Your task to perform on an android device: set default search engine in the chrome app Image 0: 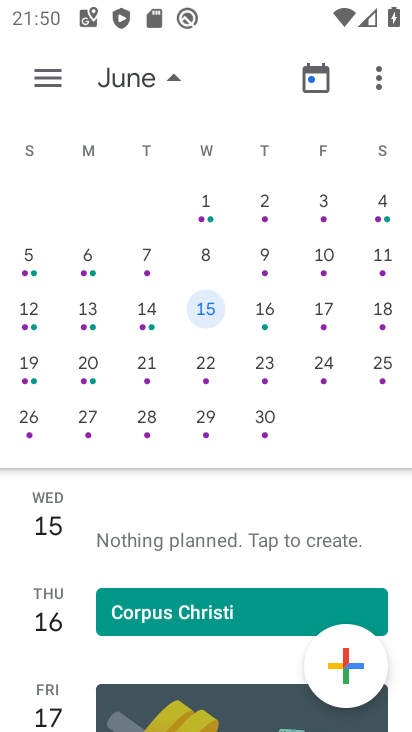
Step 0: press home button
Your task to perform on an android device: set default search engine in the chrome app Image 1: 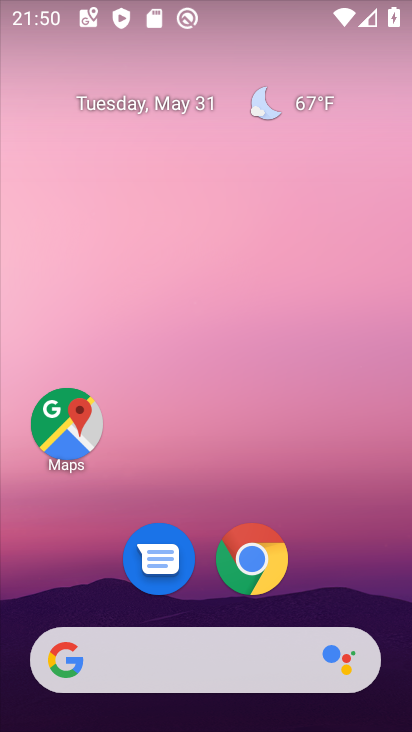
Step 1: click (254, 560)
Your task to perform on an android device: set default search engine in the chrome app Image 2: 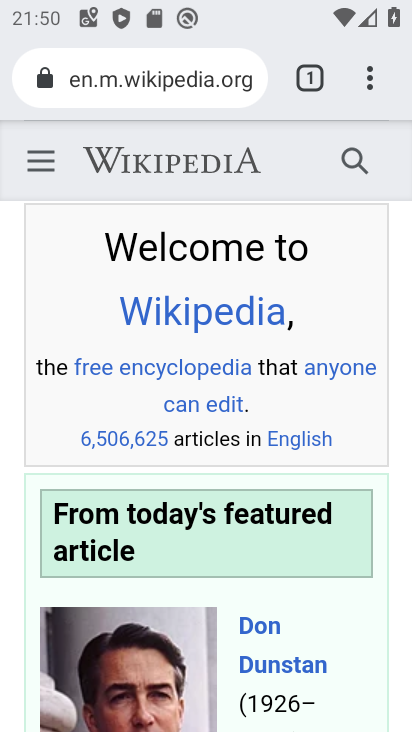
Step 2: click (371, 88)
Your task to perform on an android device: set default search engine in the chrome app Image 3: 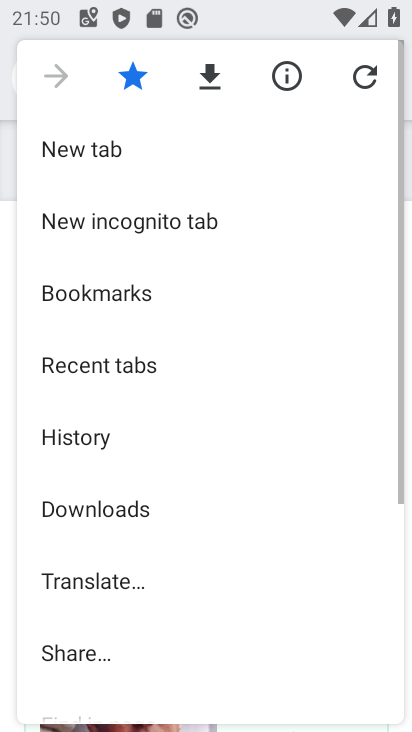
Step 3: drag from (151, 638) to (175, 241)
Your task to perform on an android device: set default search engine in the chrome app Image 4: 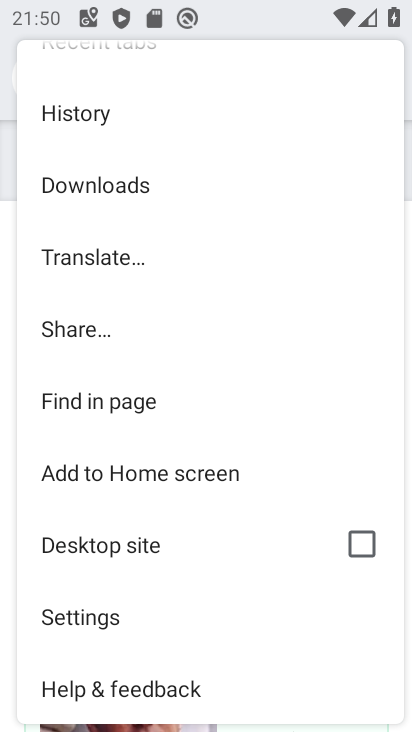
Step 4: click (110, 623)
Your task to perform on an android device: set default search engine in the chrome app Image 5: 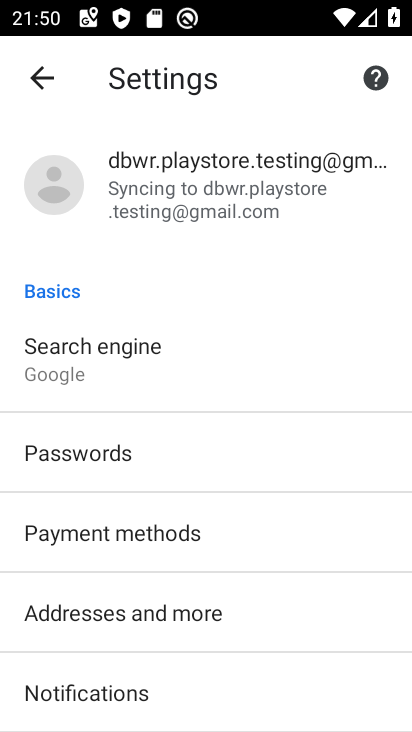
Step 5: click (106, 361)
Your task to perform on an android device: set default search engine in the chrome app Image 6: 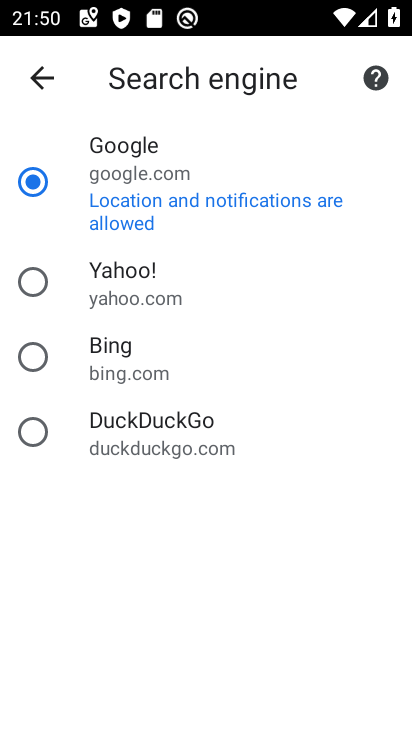
Step 6: task complete